Your task to perform on an android device: add a label to a message in the gmail app Image 0: 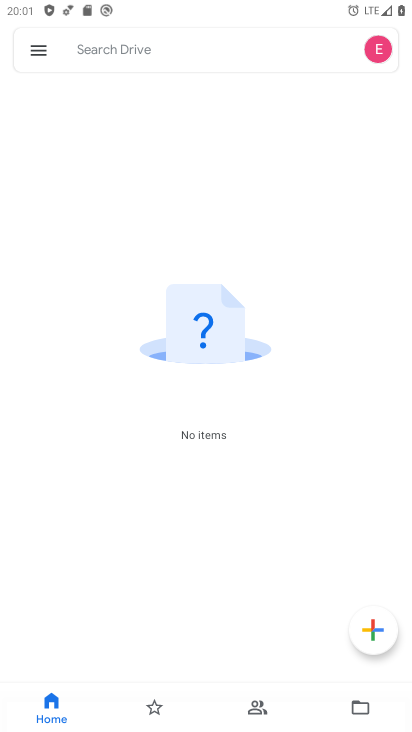
Step 0: press home button
Your task to perform on an android device: add a label to a message in the gmail app Image 1: 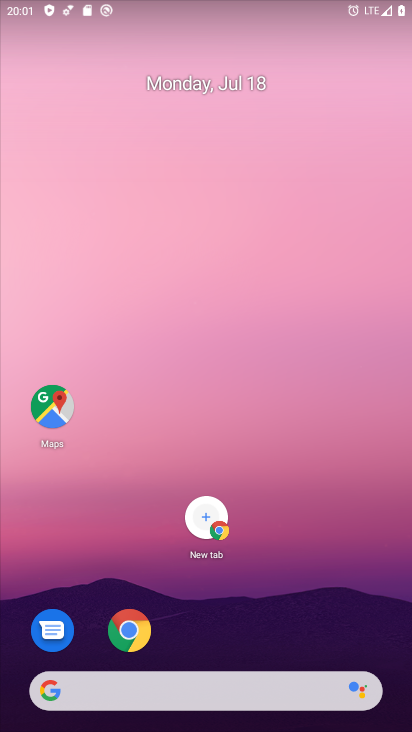
Step 1: drag from (189, 662) to (198, 339)
Your task to perform on an android device: add a label to a message in the gmail app Image 2: 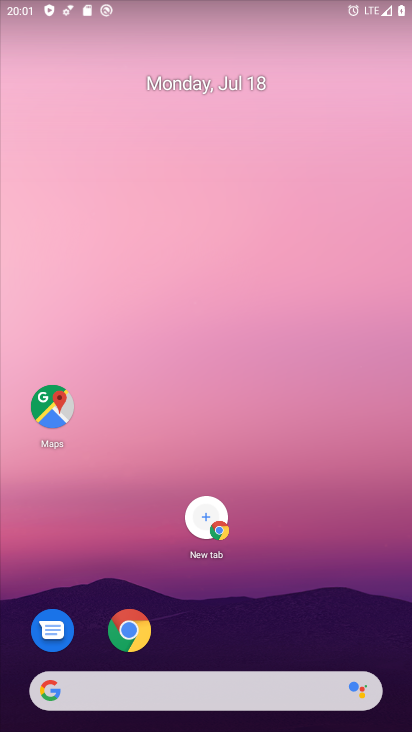
Step 2: drag from (204, 668) to (238, 297)
Your task to perform on an android device: add a label to a message in the gmail app Image 3: 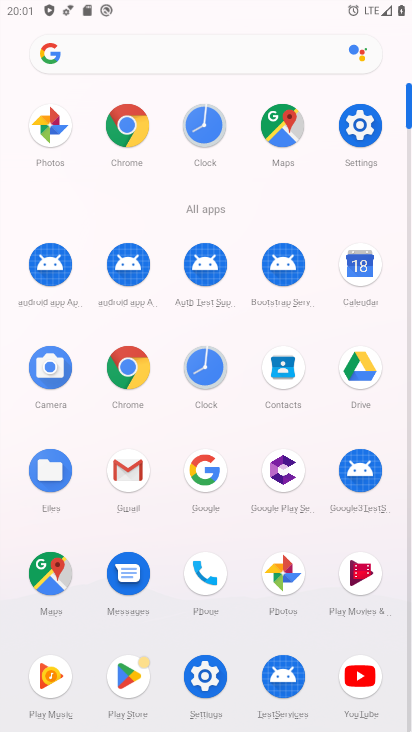
Step 3: click (116, 475)
Your task to perform on an android device: add a label to a message in the gmail app Image 4: 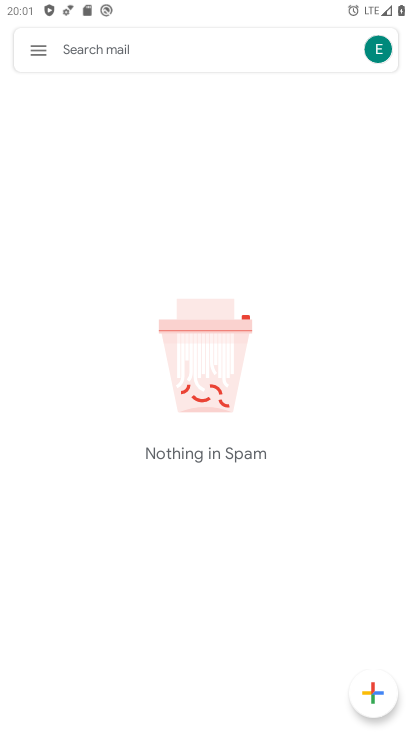
Step 4: click (36, 51)
Your task to perform on an android device: add a label to a message in the gmail app Image 5: 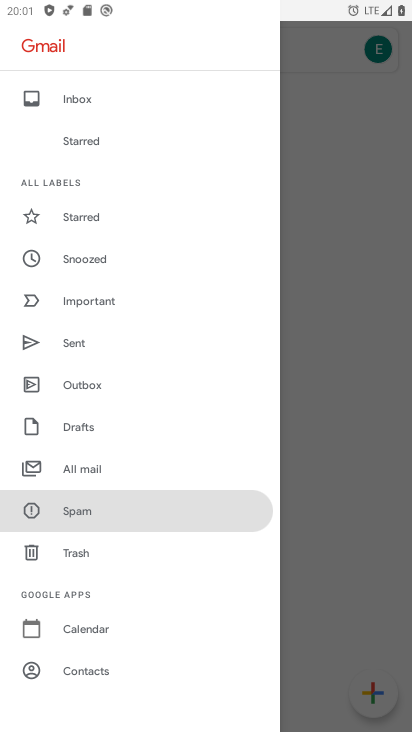
Step 5: click (83, 107)
Your task to perform on an android device: add a label to a message in the gmail app Image 6: 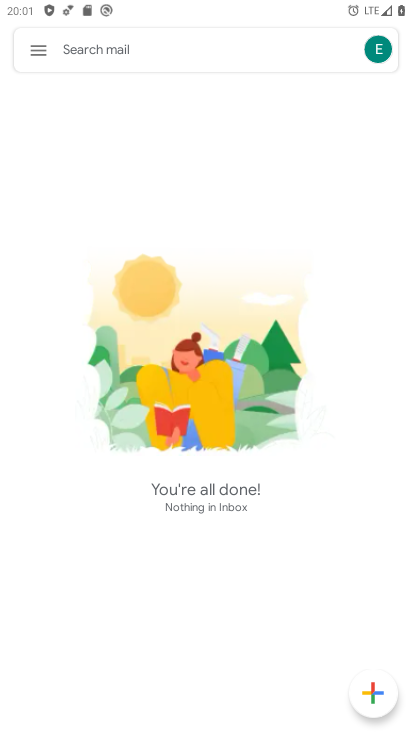
Step 6: task complete